Your task to perform on an android device: Open calendar and show me the third week of next month Image 0: 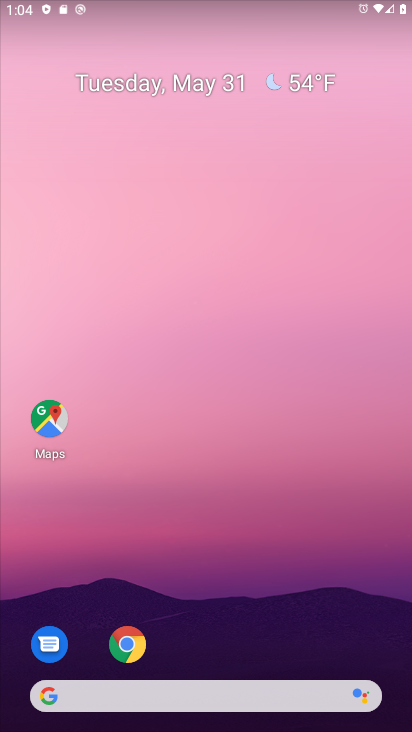
Step 0: drag from (285, 614) to (317, 252)
Your task to perform on an android device: Open calendar and show me the third week of next month Image 1: 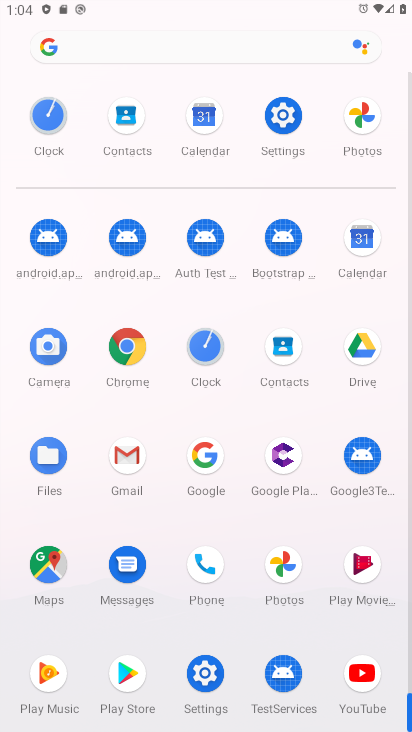
Step 1: click (196, 132)
Your task to perform on an android device: Open calendar and show me the third week of next month Image 2: 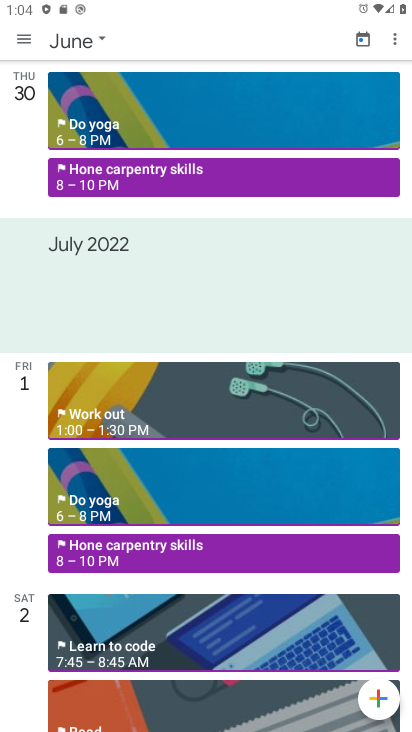
Step 2: click (103, 36)
Your task to perform on an android device: Open calendar and show me the third week of next month Image 3: 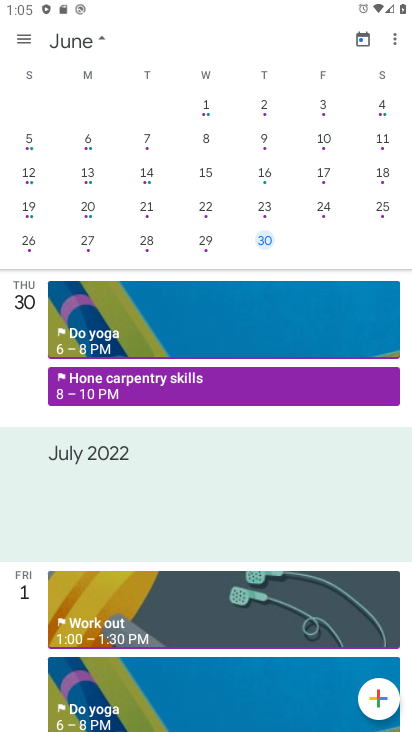
Step 3: click (327, 172)
Your task to perform on an android device: Open calendar and show me the third week of next month Image 4: 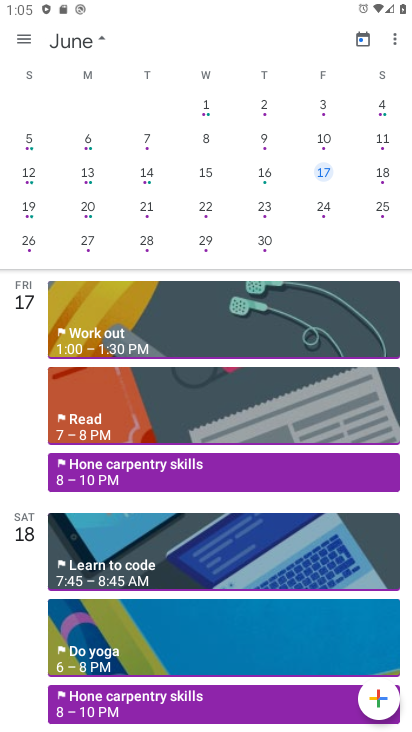
Step 4: task complete